Your task to perform on an android device: open chrome and create a bookmark for the current page Image 0: 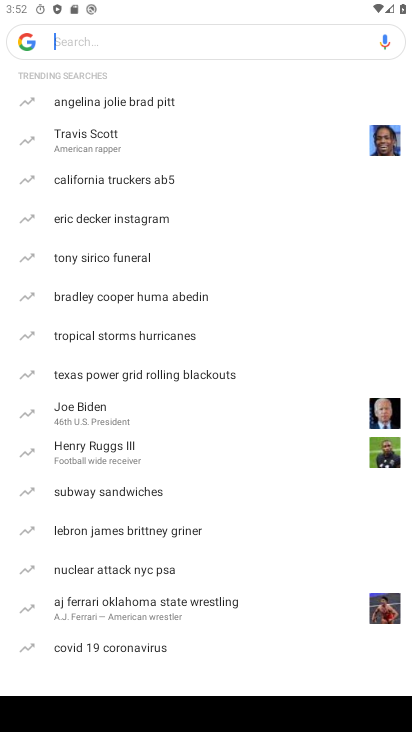
Step 0: press back button
Your task to perform on an android device: open chrome and create a bookmark for the current page Image 1: 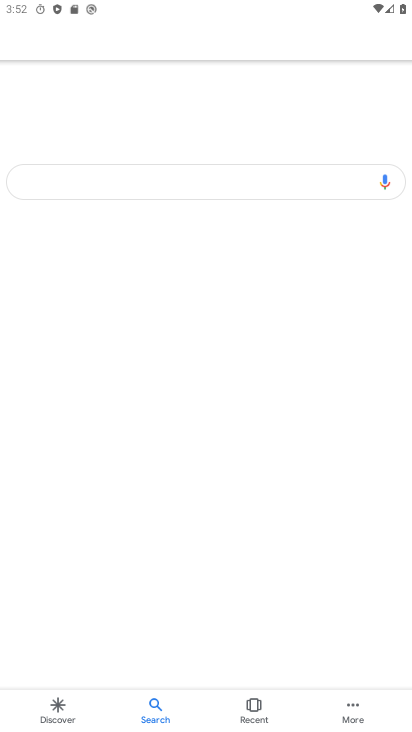
Step 1: press back button
Your task to perform on an android device: open chrome and create a bookmark for the current page Image 2: 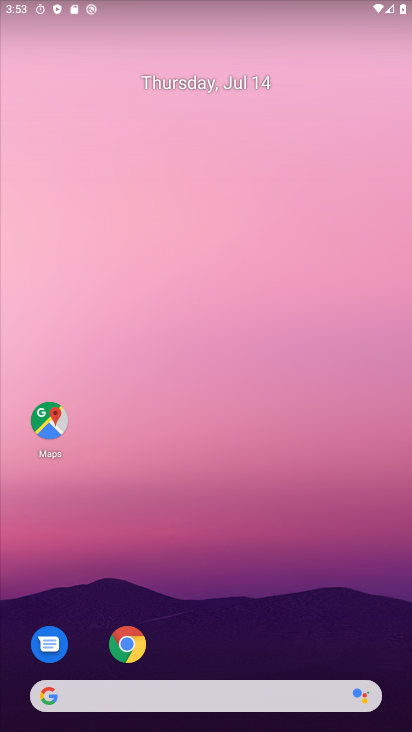
Step 2: click (120, 642)
Your task to perform on an android device: open chrome and create a bookmark for the current page Image 3: 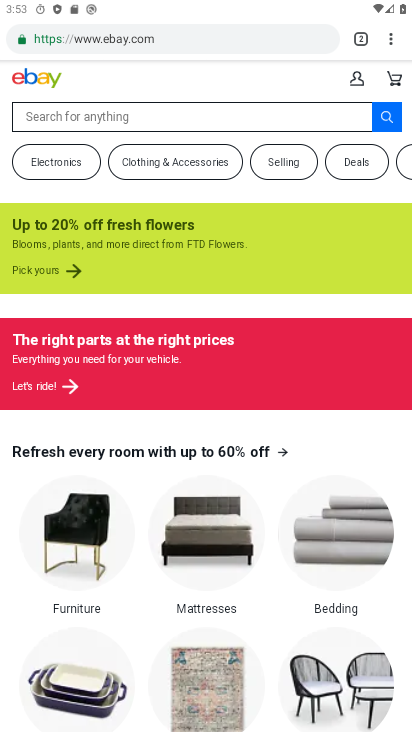
Step 3: task complete